Your task to perform on an android device: Show me popular games on the Play Store Image 0: 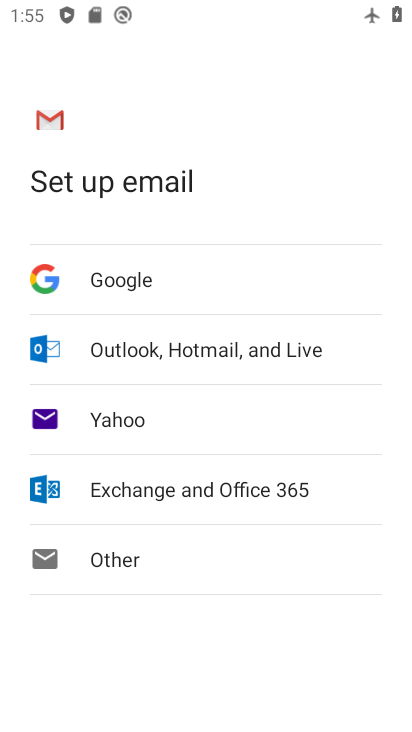
Step 0: press home button
Your task to perform on an android device: Show me popular games on the Play Store Image 1: 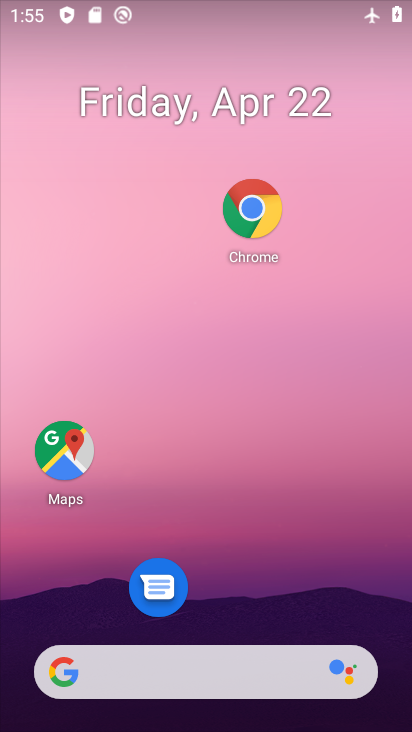
Step 1: drag from (216, 624) to (221, 115)
Your task to perform on an android device: Show me popular games on the Play Store Image 2: 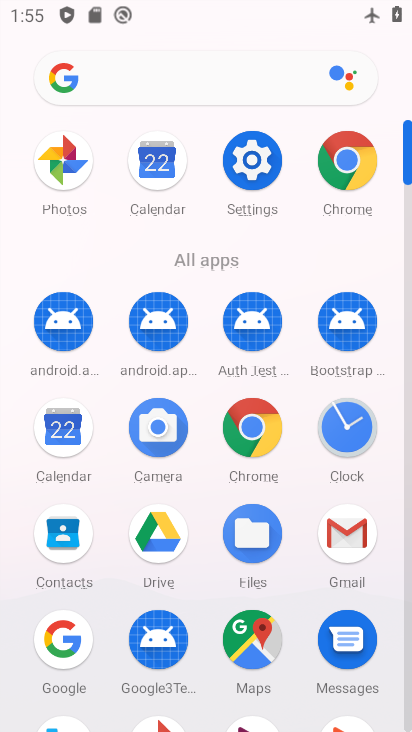
Step 2: drag from (225, 640) to (284, 174)
Your task to perform on an android device: Show me popular games on the Play Store Image 3: 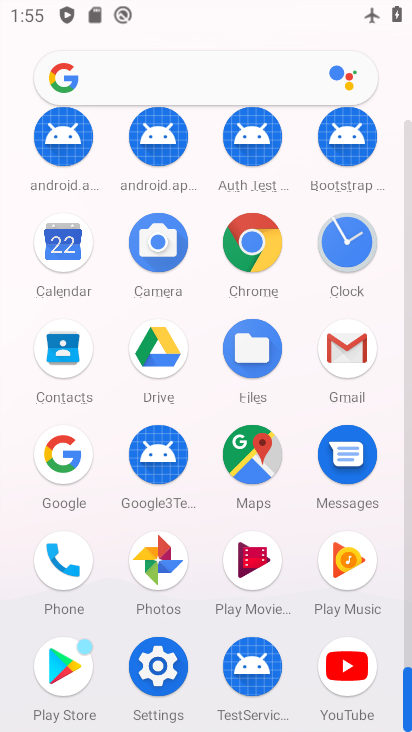
Step 3: click (73, 651)
Your task to perform on an android device: Show me popular games on the Play Store Image 4: 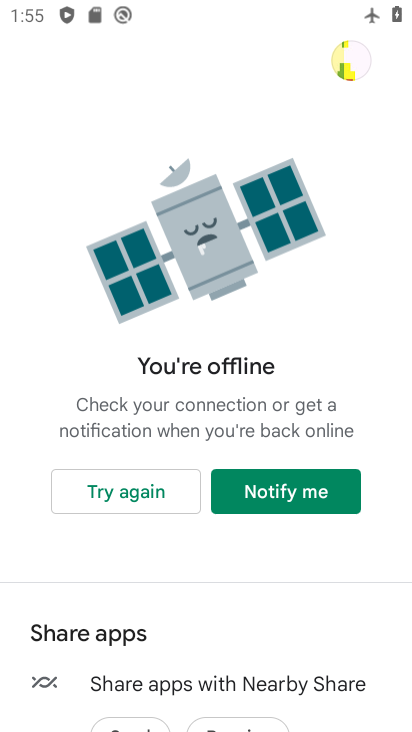
Step 4: task complete